Your task to perform on an android device: Open Maps and search for coffee Image 0: 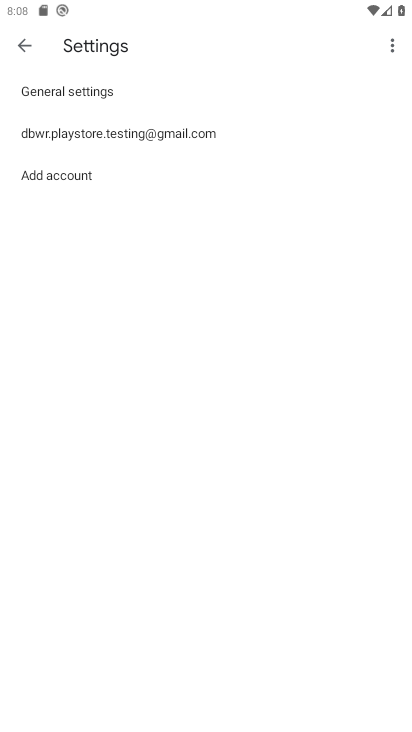
Step 0: press home button
Your task to perform on an android device: Open Maps and search for coffee Image 1: 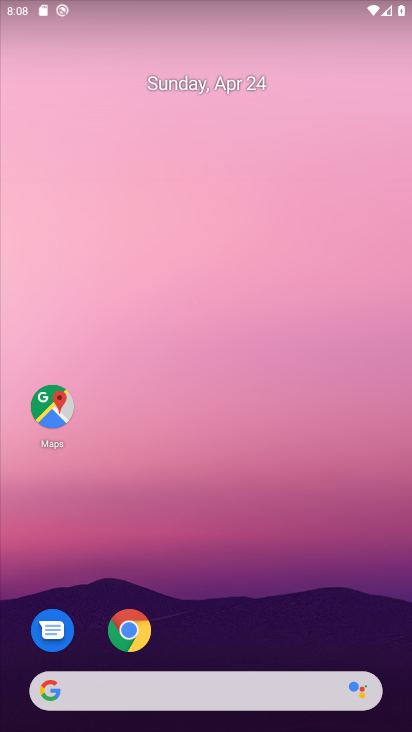
Step 1: drag from (189, 661) to (269, 133)
Your task to perform on an android device: Open Maps and search for coffee Image 2: 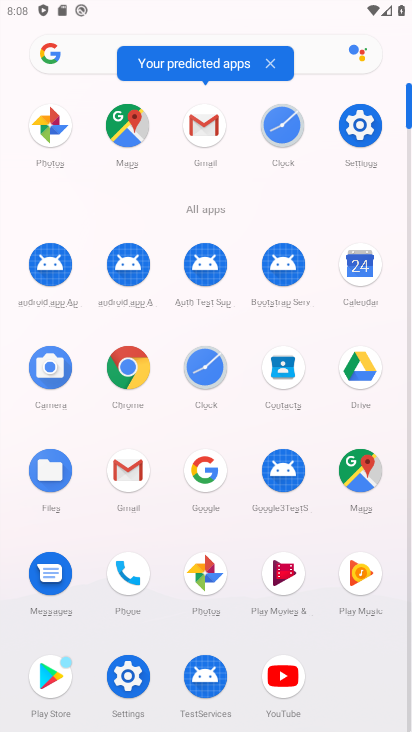
Step 2: click (342, 472)
Your task to perform on an android device: Open Maps and search for coffee Image 3: 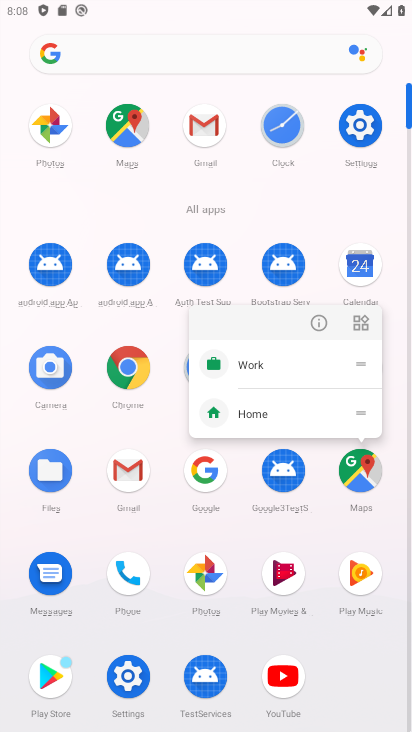
Step 3: click (357, 472)
Your task to perform on an android device: Open Maps and search for coffee Image 4: 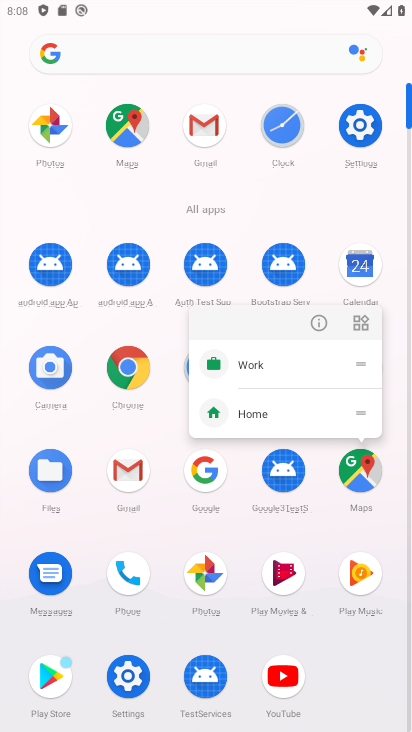
Step 4: click (371, 486)
Your task to perform on an android device: Open Maps and search for coffee Image 5: 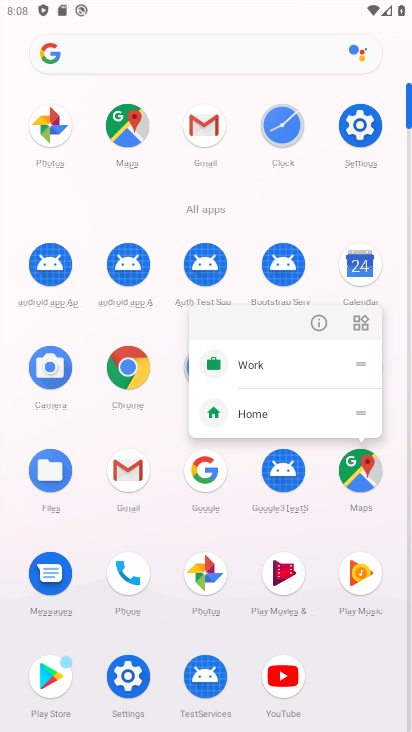
Step 5: click (361, 463)
Your task to perform on an android device: Open Maps and search for coffee Image 6: 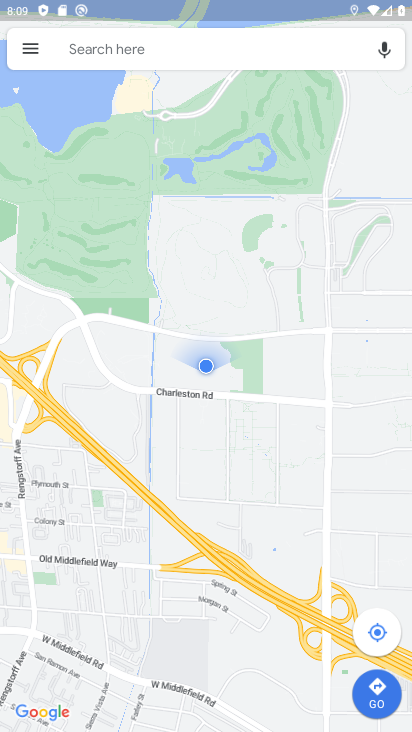
Step 6: click (192, 43)
Your task to perform on an android device: Open Maps and search for coffee Image 7: 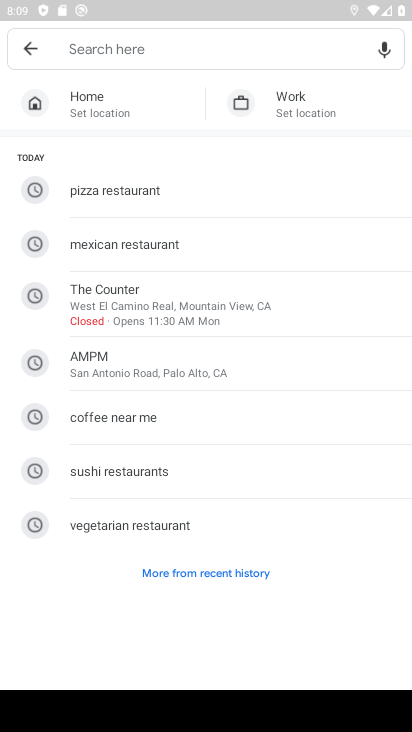
Step 7: type "coffee"
Your task to perform on an android device: Open Maps and search for coffee Image 8: 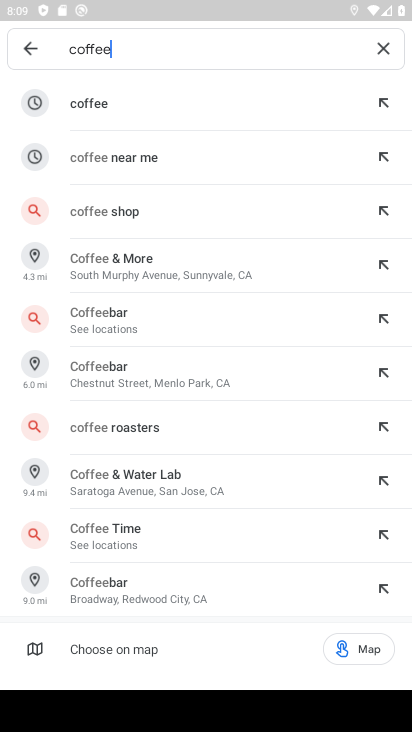
Step 8: click (145, 117)
Your task to perform on an android device: Open Maps and search for coffee Image 9: 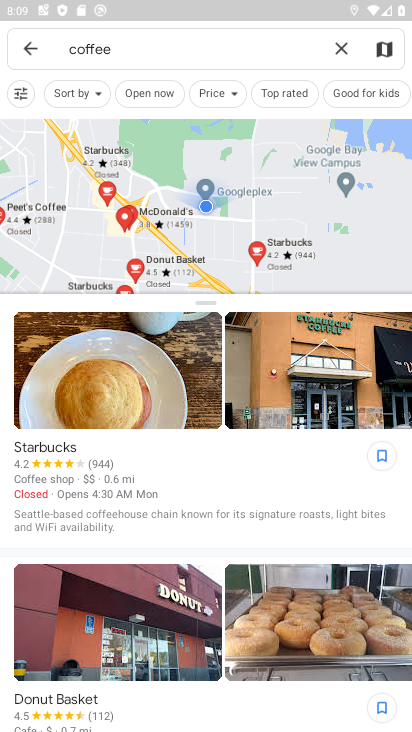
Step 9: task complete